Your task to perform on an android device: Go to ESPN.com Image 0: 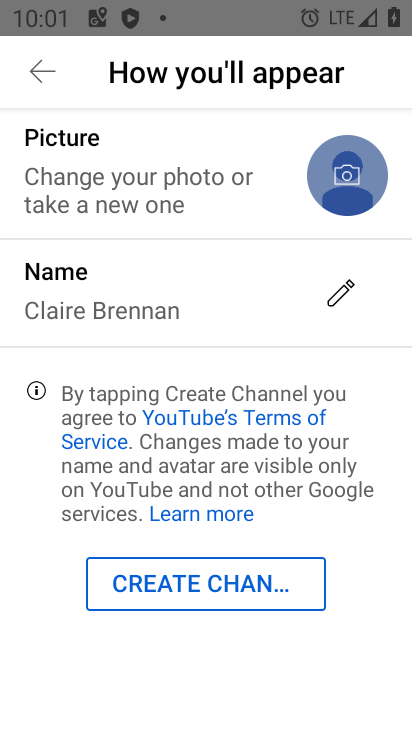
Step 0: press home button
Your task to perform on an android device: Go to ESPN.com Image 1: 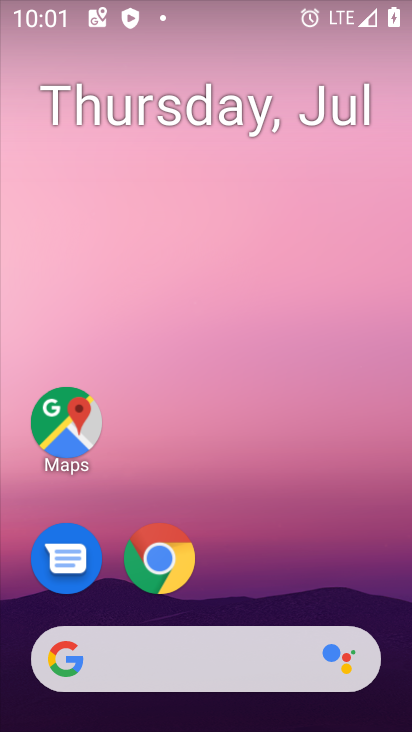
Step 1: drag from (312, 533) to (359, 126)
Your task to perform on an android device: Go to ESPN.com Image 2: 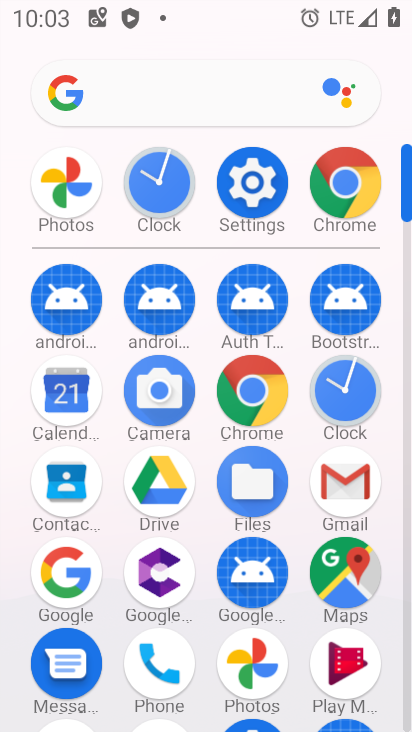
Step 2: click (268, 389)
Your task to perform on an android device: Go to ESPN.com Image 3: 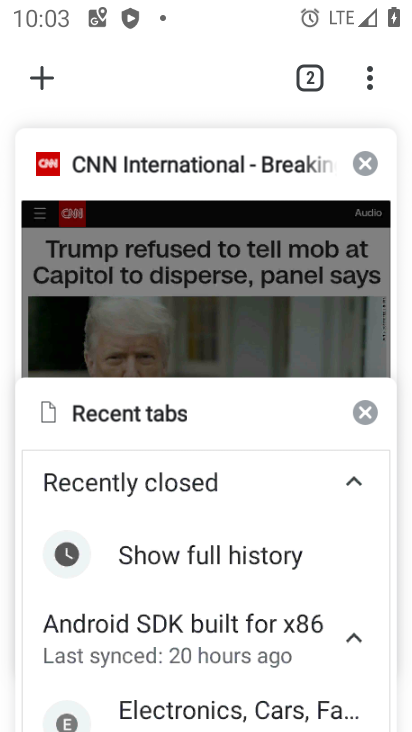
Step 3: press back button
Your task to perform on an android device: Go to ESPN.com Image 4: 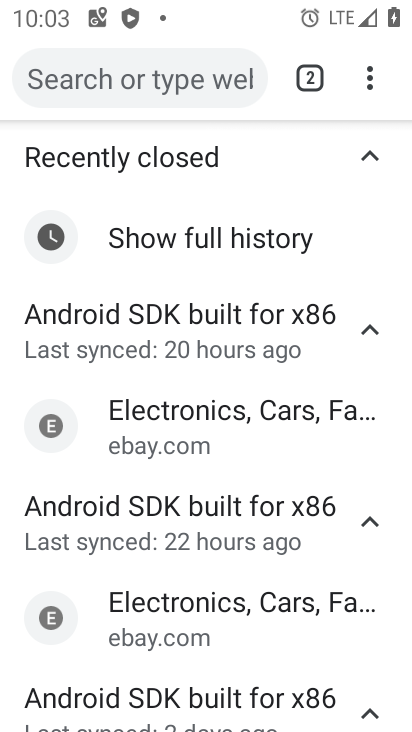
Step 4: click (213, 86)
Your task to perform on an android device: Go to ESPN.com Image 5: 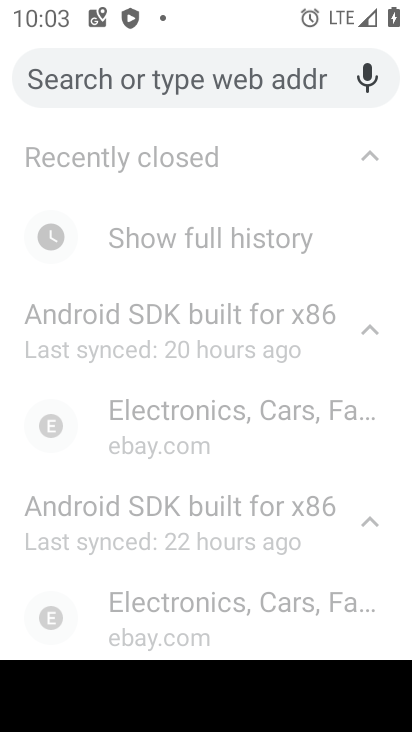
Step 5: type "espn.com"
Your task to perform on an android device: Go to ESPN.com Image 6: 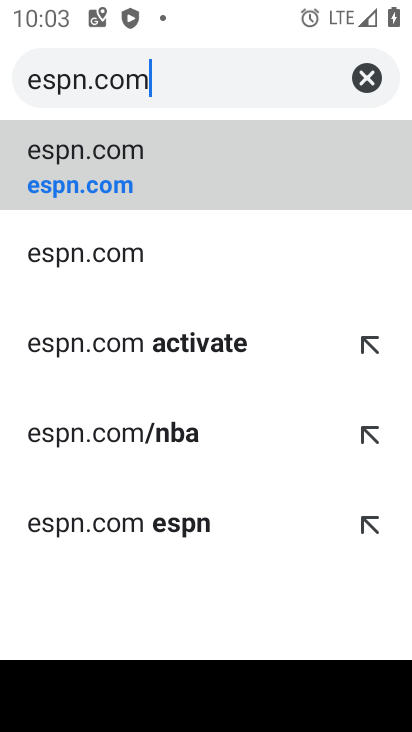
Step 6: click (366, 163)
Your task to perform on an android device: Go to ESPN.com Image 7: 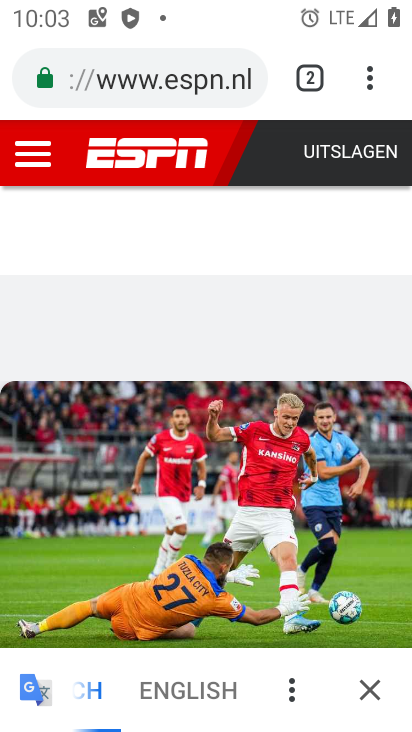
Step 7: task complete